Your task to perform on an android device: See recent photos Image 0: 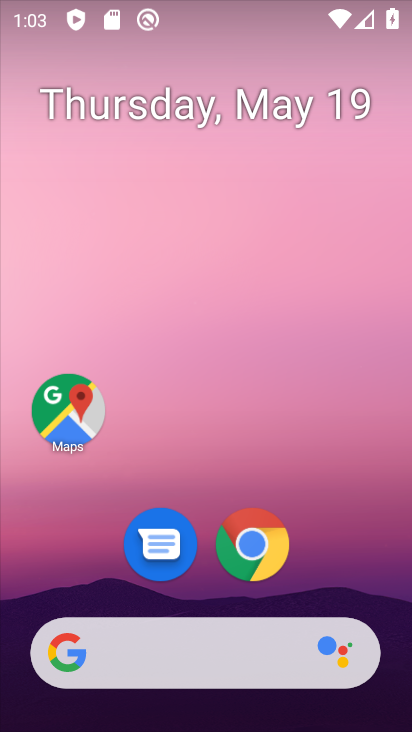
Step 0: drag from (302, 689) to (106, 93)
Your task to perform on an android device: See recent photos Image 1: 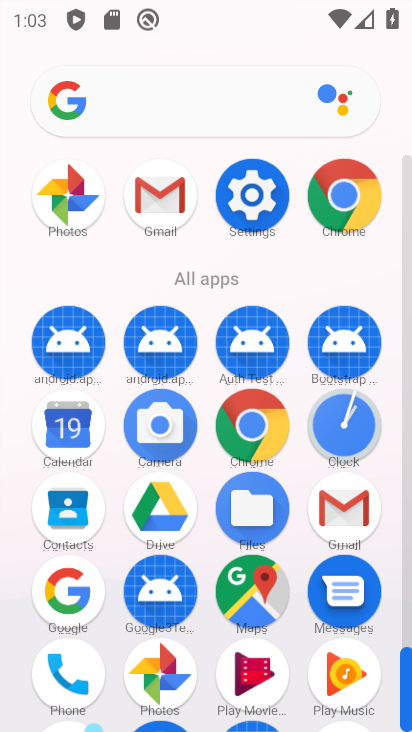
Step 1: drag from (189, 550) to (139, 396)
Your task to perform on an android device: See recent photos Image 2: 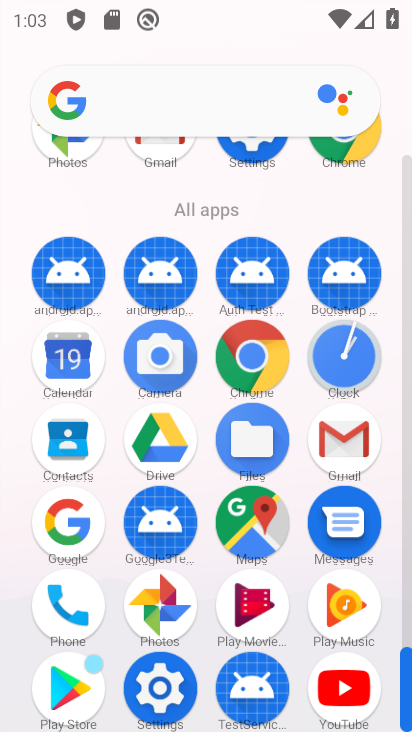
Step 2: drag from (206, 574) to (143, 389)
Your task to perform on an android device: See recent photos Image 3: 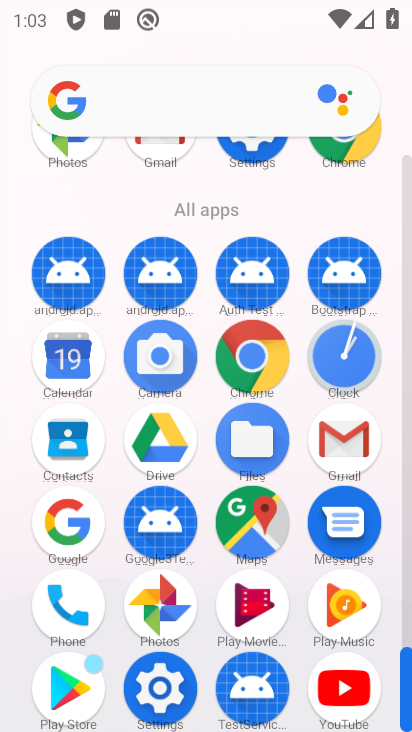
Step 3: click (162, 629)
Your task to perform on an android device: See recent photos Image 4: 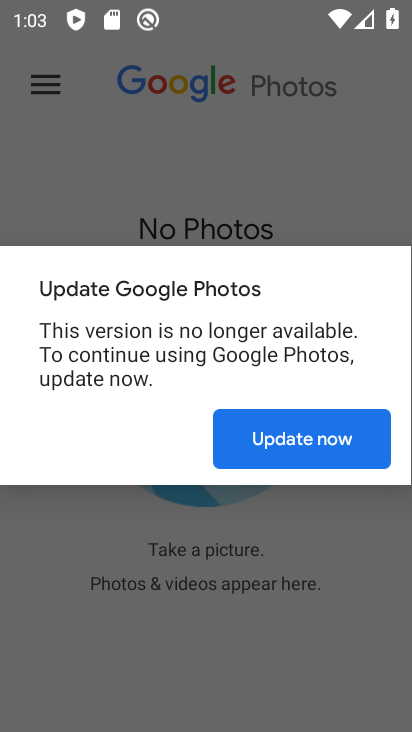
Step 4: click (298, 454)
Your task to perform on an android device: See recent photos Image 5: 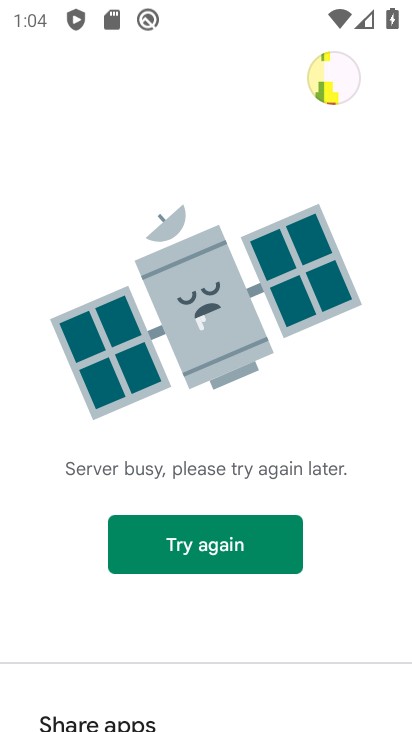
Step 5: click (221, 559)
Your task to perform on an android device: See recent photos Image 6: 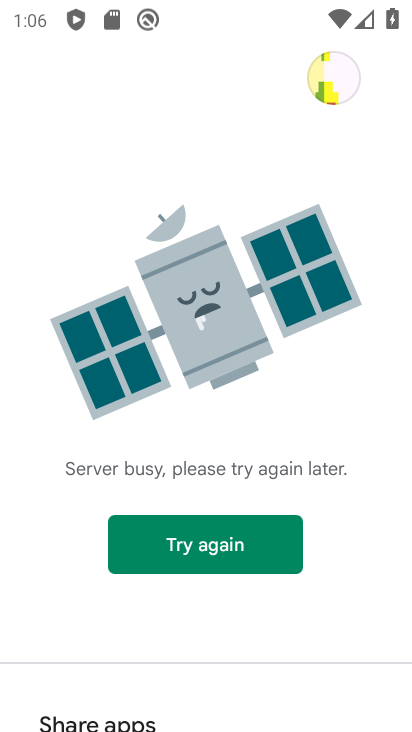
Step 6: task complete